Your task to perform on an android device: Open Google Image 0: 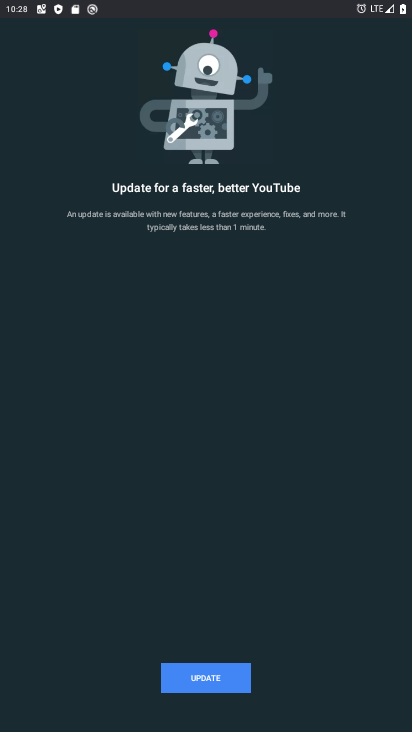
Step 0: press home button
Your task to perform on an android device: Open Google Image 1: 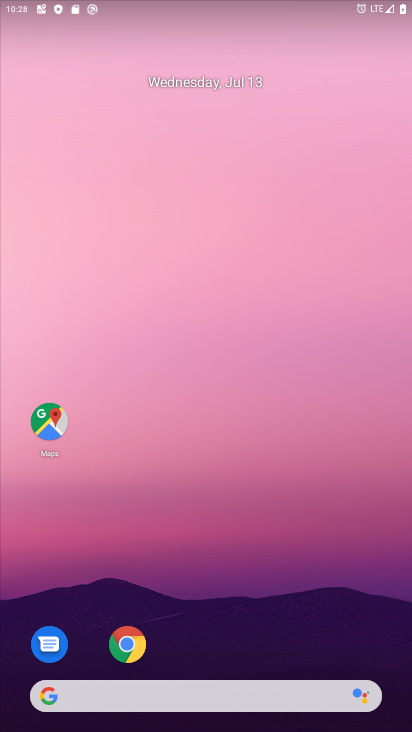
Step 1: drag from (214, 728) to (229, 250)
Your task to perform on an android device: Open Google Image 2: 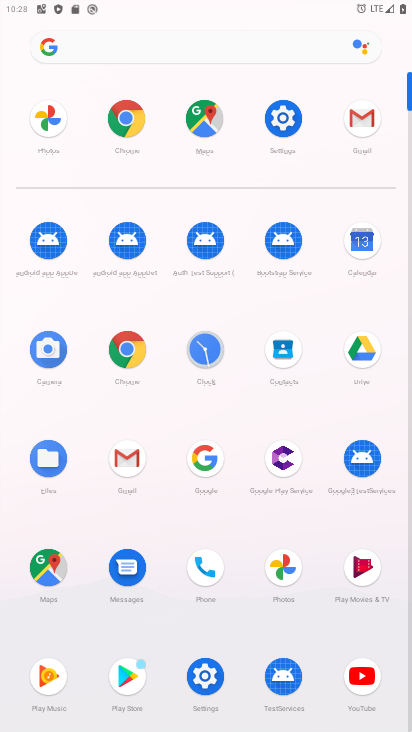
Step 2: click (205, 457)
Your task to perform on an android device: Open Google Image 3: 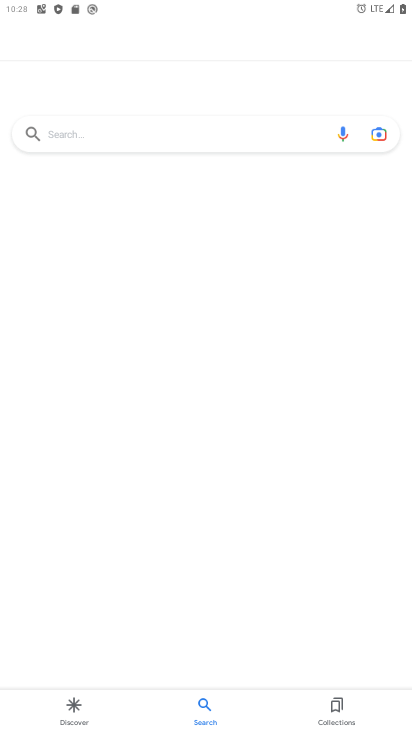
Step 3: task complete